Your task to perform on an android device: Google the capital of the United States Image 0: 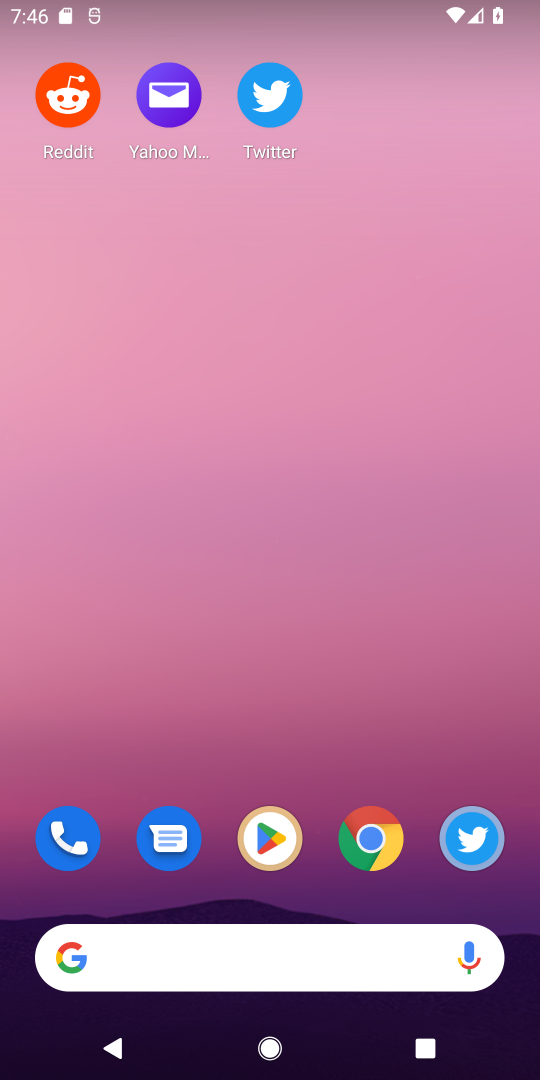
Step 0: click (365, 842)
Your task to perform on an android device: Google the capital of the United States Image 1: 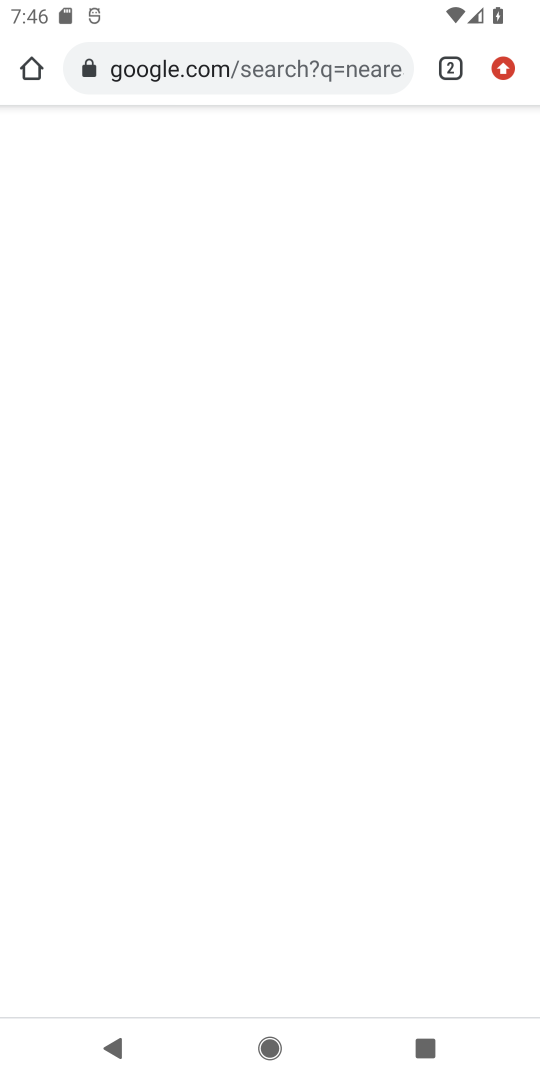
Step 1: click (255, 50)
Your task to perform on an android device: Google the capital of the United States Image 2: 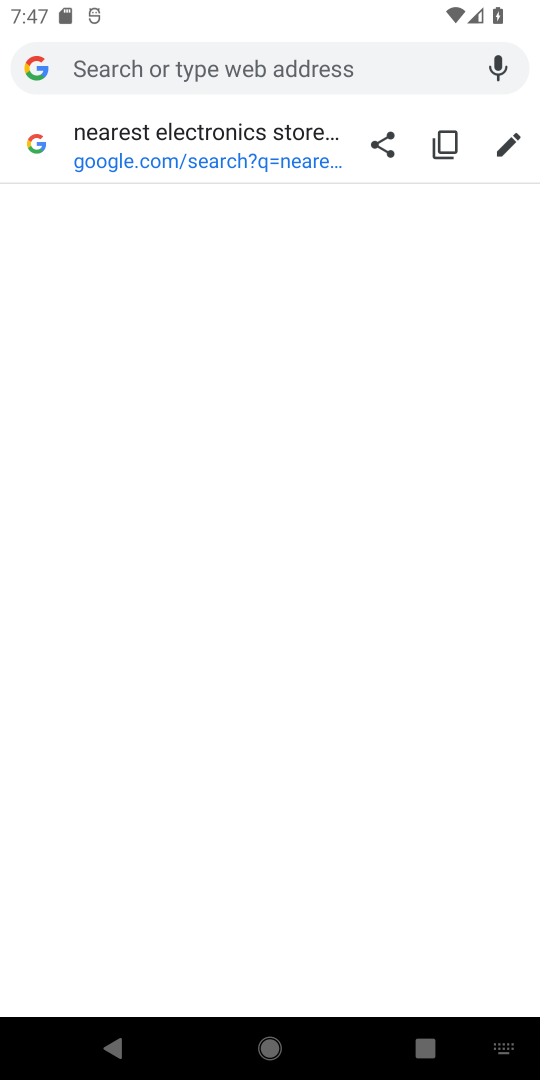
Step 2: type "capital of USA"
Your task to perform on an android device: Google the capital of the United States Image 3: 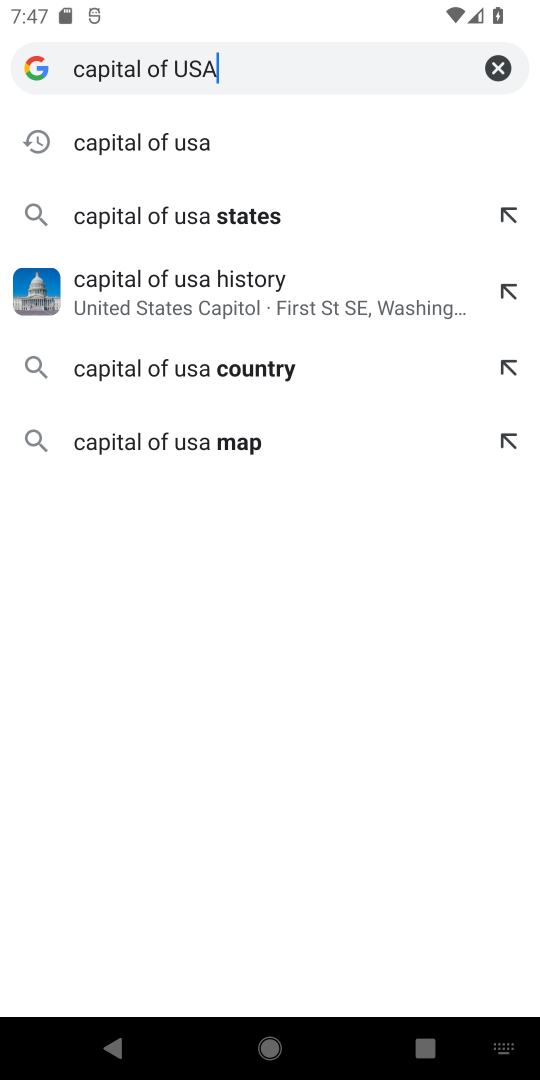
Step 3: click (133, 134)
Your task to perform on an android device: Google the capital of the United States Image 4: 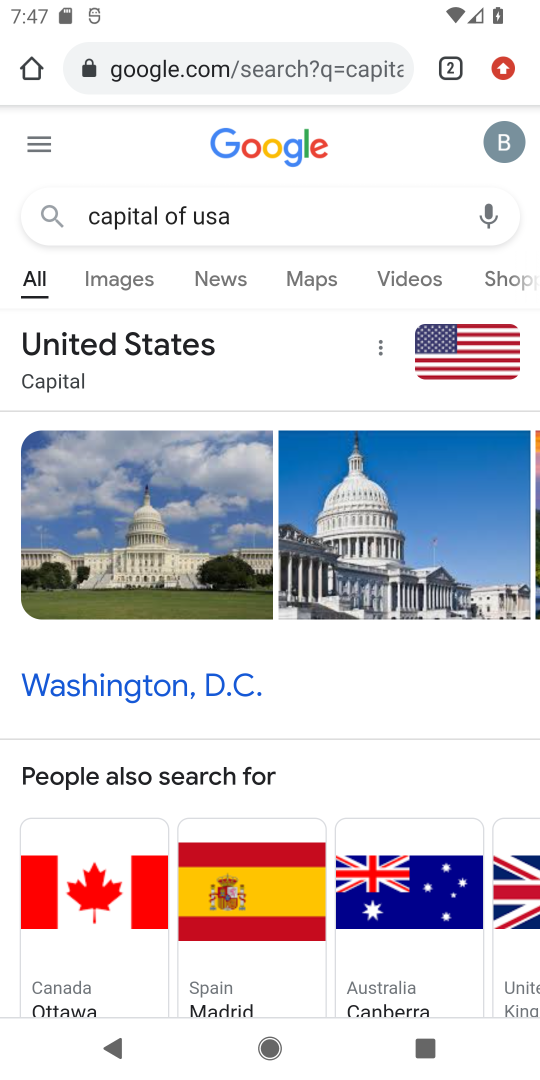
Step 4: task complete